Your task to perform on an android device: Open battery settings Image 0: 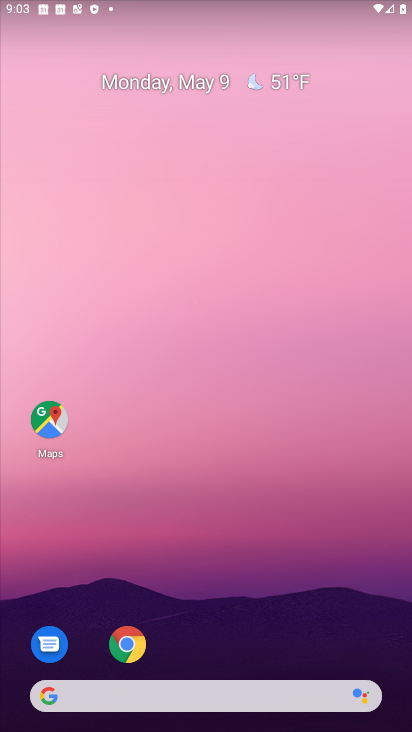
Step 0: drag from (215, 659) to (235, 1)
Your task to perform on an android device: Open battery settings Image 1: 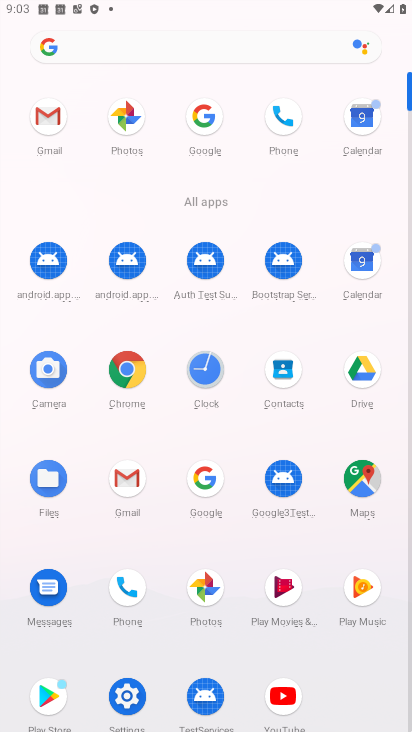
Step 1: click (133, 707)
Your task to perform on an android device: Open battery settings Image 2: 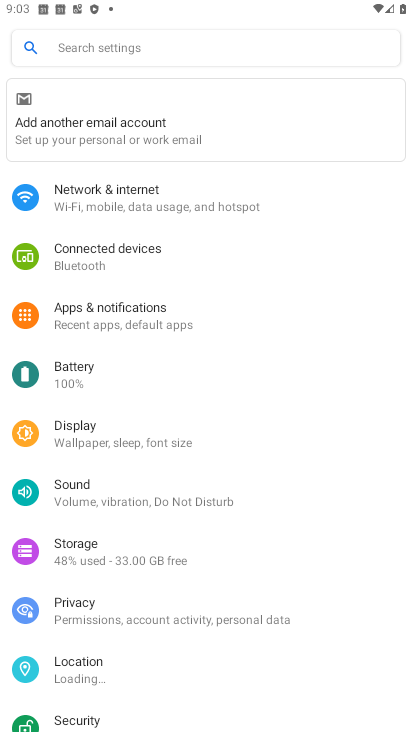
Step 2: drag from (99, 653) to (83, 540)
Your task to perform on an android device: Open battery settings Image 3: 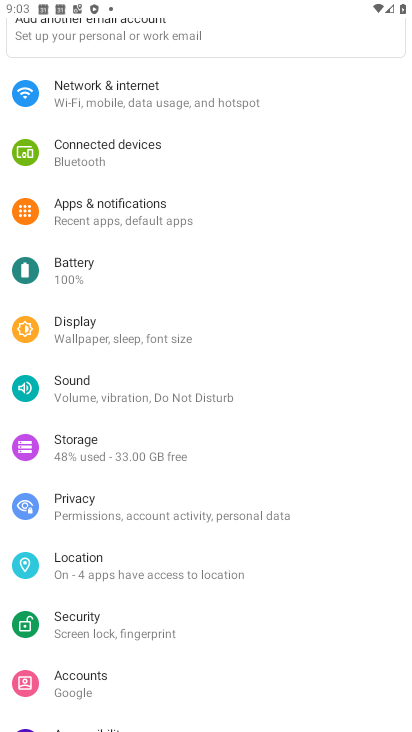
Step 3: click (79, 257)
Your task to perform on an android device: Open battery settings Image 4: 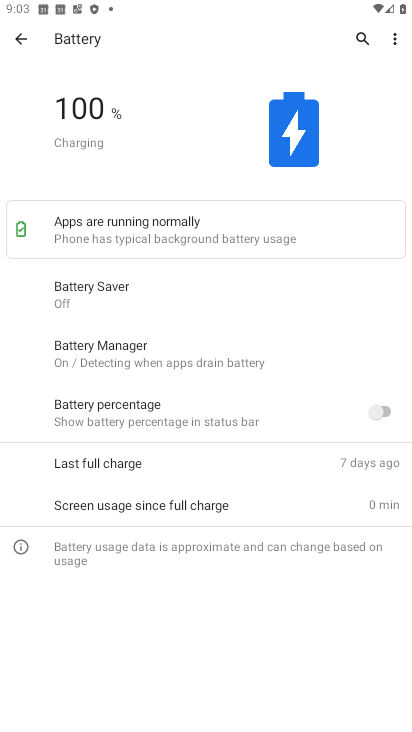
Step 4: task complete